Your task to perform on an android device: What is the news today? Image 0: 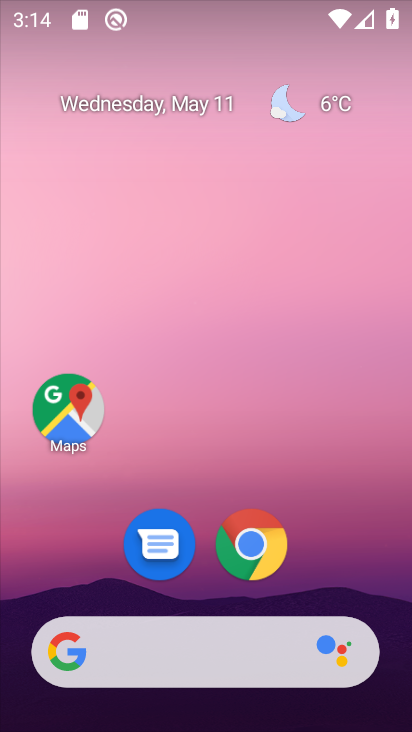
Step 0: click (156, 648)
Your task to perform on an android device: What is the news today? Image 1: 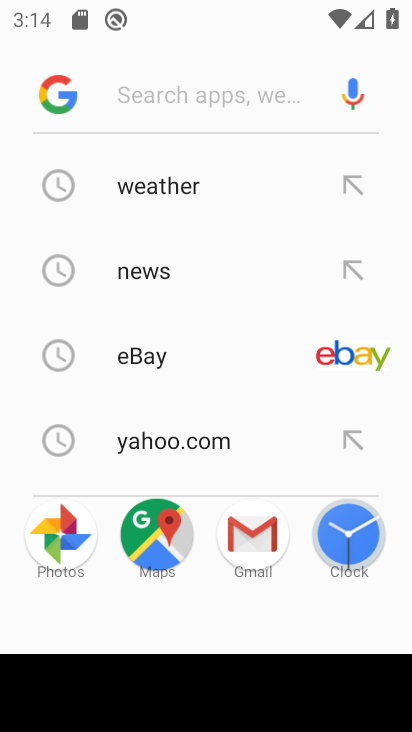
Step 1: type "what it the news today"
Your task to perform on an android device: What is the news today? Image 2: 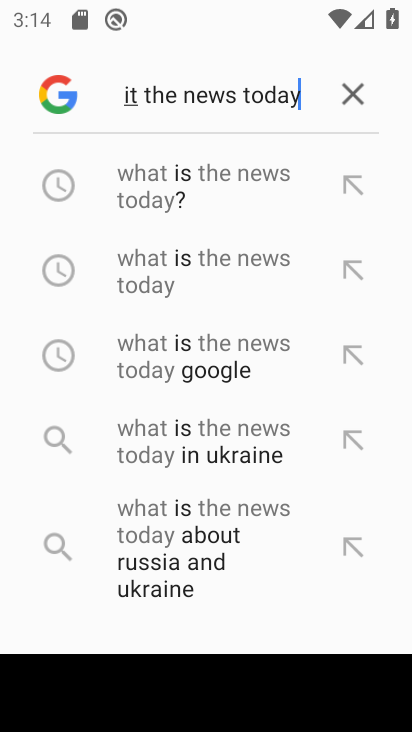
Step 2: click (289, 198)
Your task to perform on an android device: What is the news today? Image 3: 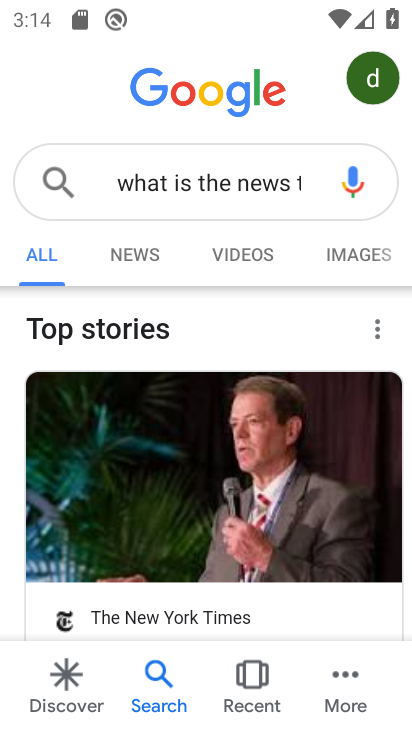
Step 3: click (121, 255)
Your task to perform on an android device: What is the news today? Image 4: 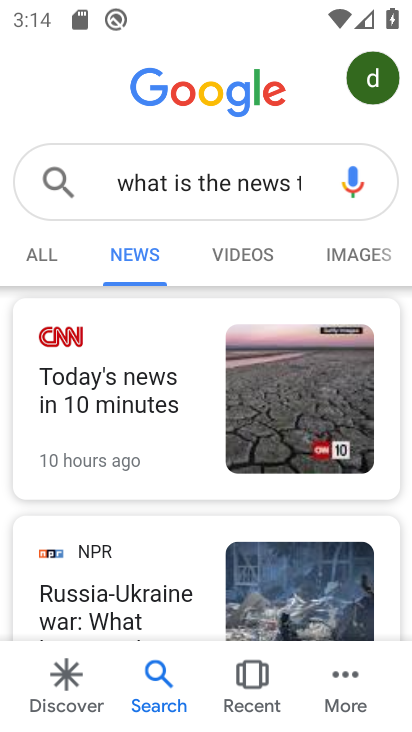
Step 4: task complete